Your task to perform on an android device: Open ESPN.com Image 0: 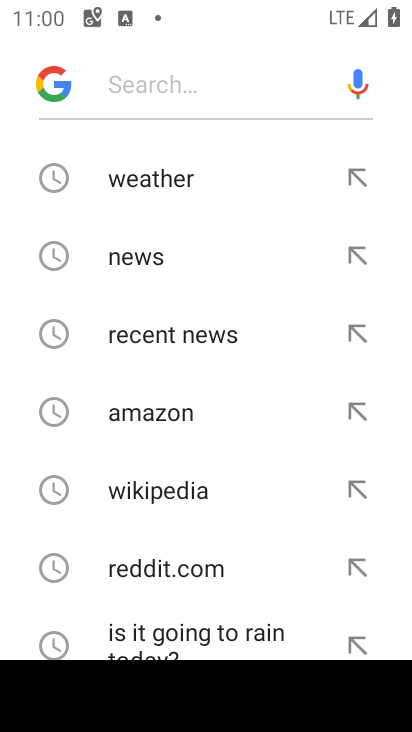
Step 0: press home button
Your task to perform on an android device: Open ESPN.com Image 1: 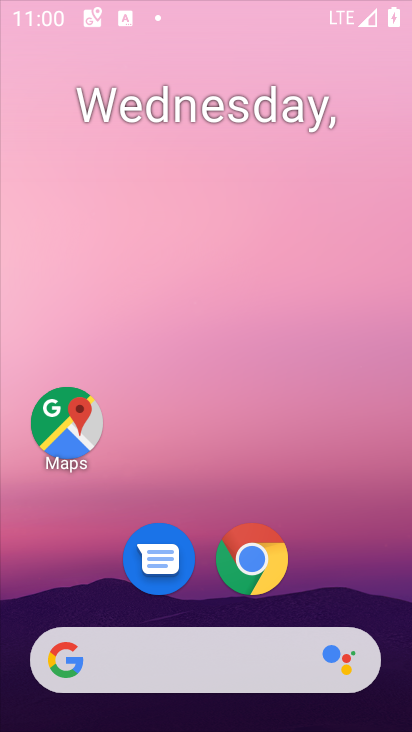
Step 1: drag from (193, 622) to (201, 187)
Your task to perform on an android device: Open ESPN.com Image 2: 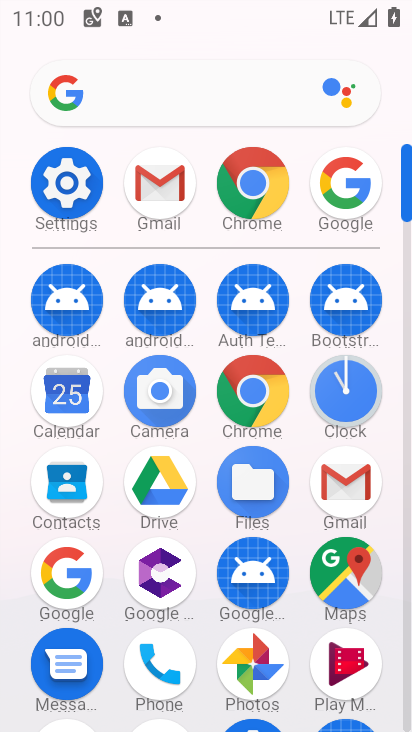
Step 2: click (263, 176)
Your task to perform on an android device: Open ESPN.com Image 3: 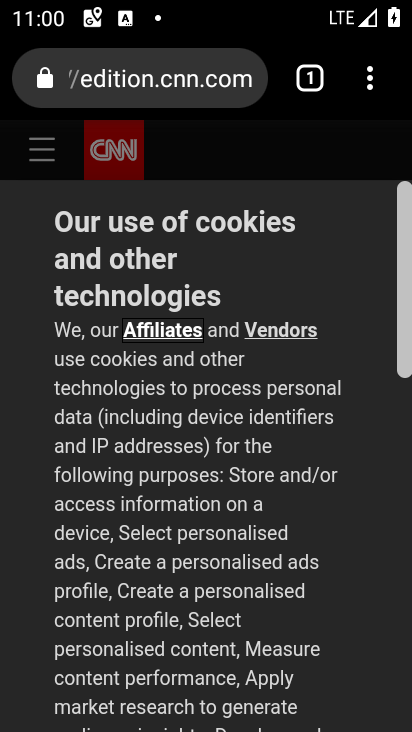
Step 3: click (165, 97)
Your task to perform on an android device: Open ESPN.com Image 4: 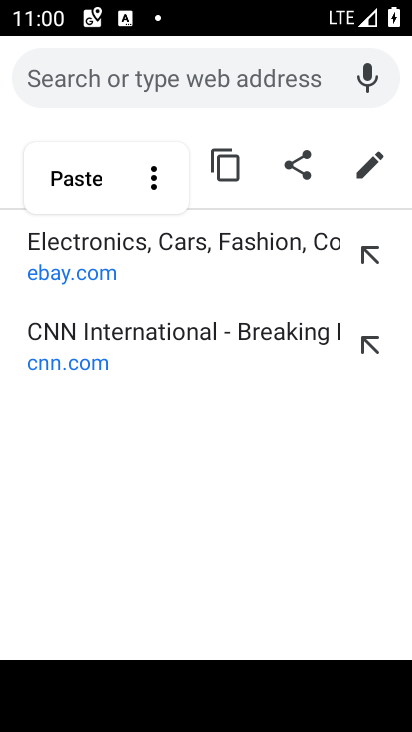
Step 4: type "espn"
Your task to perform on an android device: Open ESPN.com Image 5: 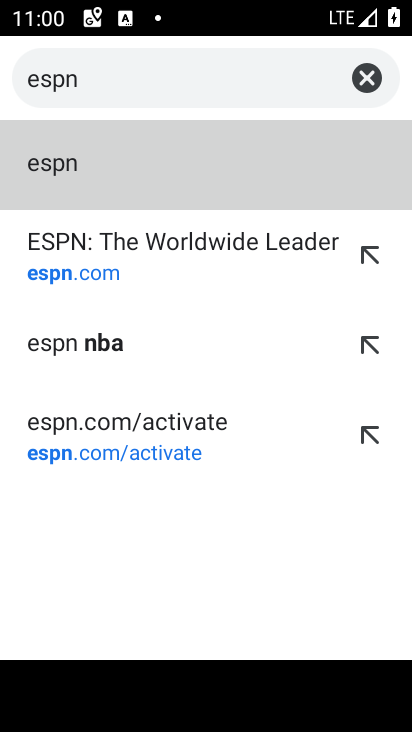
Step 5: click (95, 269)
Your task to perform on an android device: Open ESPN.com Image 6: 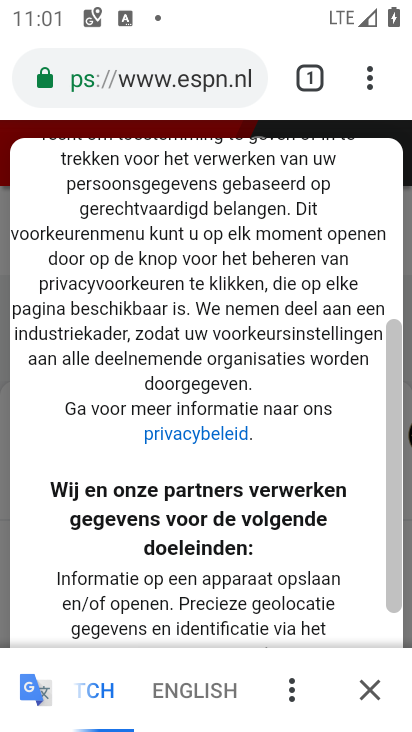
Step 6: task complete